Your task to perform on an android device: open device folders in google photos Image 0: 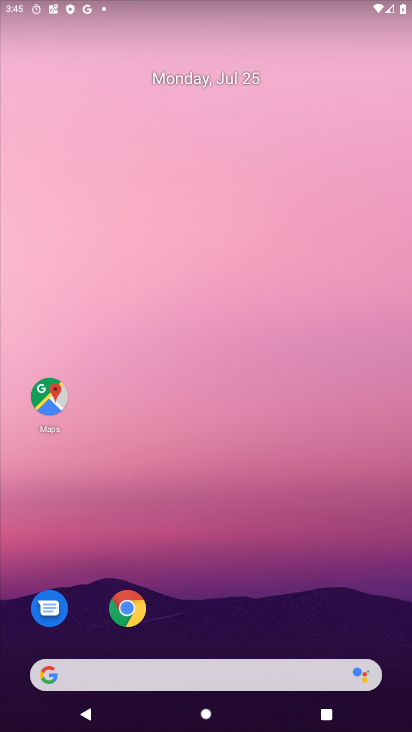
Step 0: drag from (205, 620) to (213, 0)
Your task to perform on an android device: open device folders in google photos Image 1: 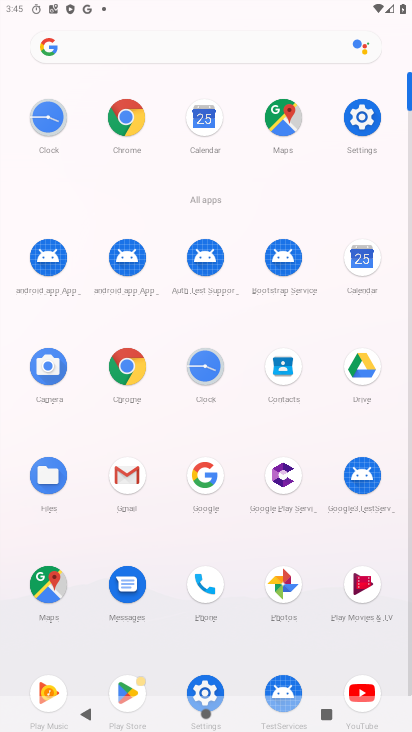
Step 1: click (362, 112)
Your task to perform on an android device: open device folders in google photos Image 2: 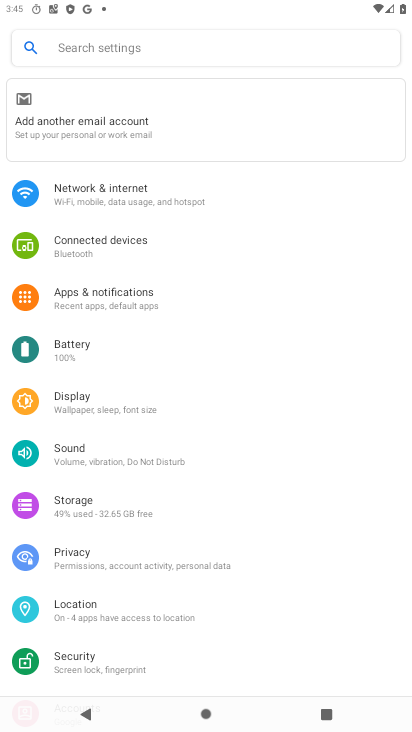
Step 2: press home button
Your task to perform on an android device: open device folders in google photos Image 3: 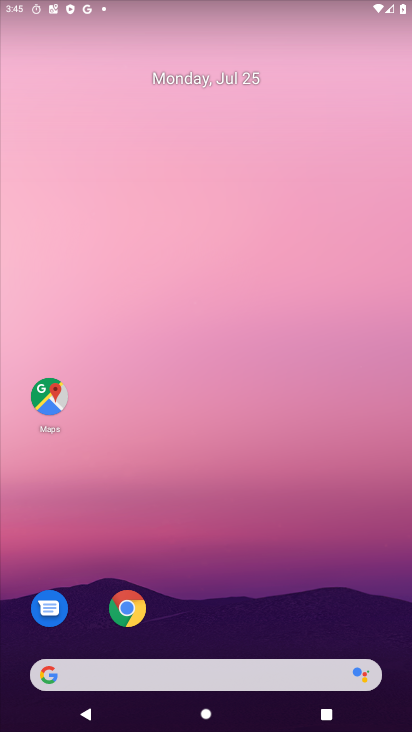
Step 3: drag from (224, 629) to (215, 61)
Your task to perform on an android device: open device folders in google photos Image 4: 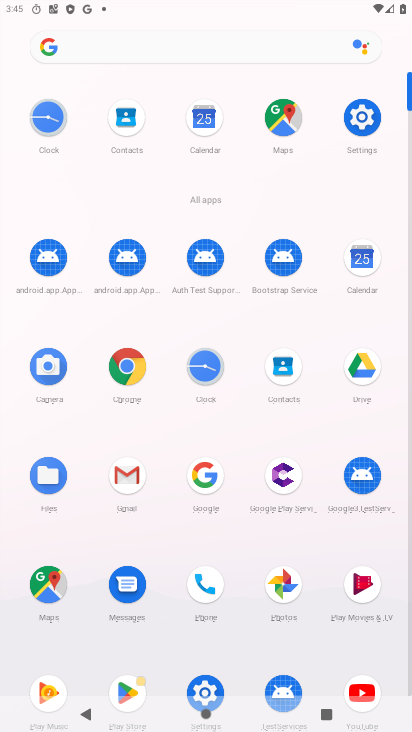
Step 4: click (282, 578)
Your task to perform on an android device: open device folders in google photos Image 5: 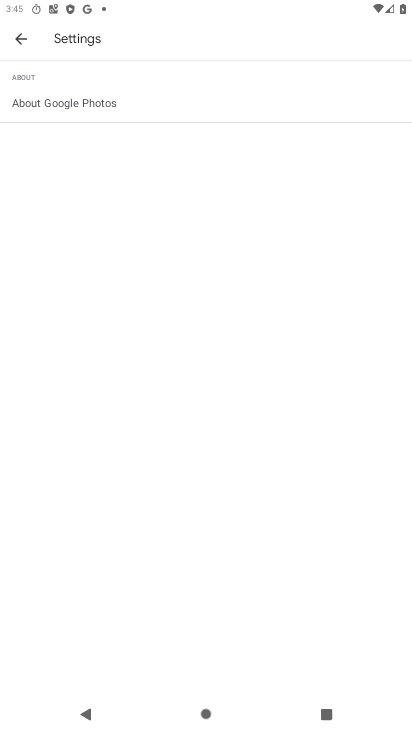
Step 5: click (18, 37)
Your task to perform on an android device: open device folders in google photos Image 6: 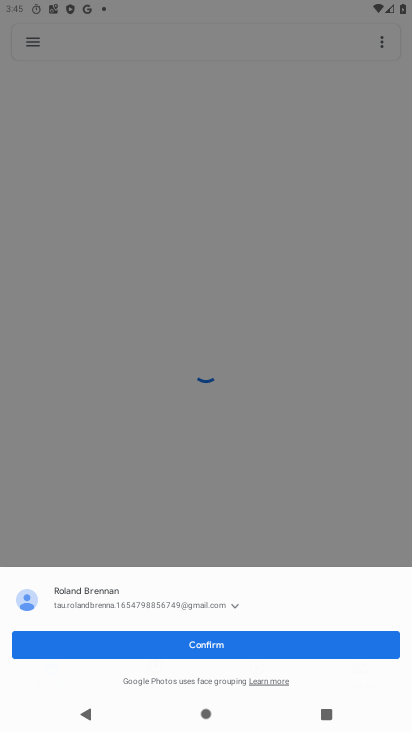
Step 6: click (35, 45)
Your task to perform on an android device: open device folders in google photos Image 7: 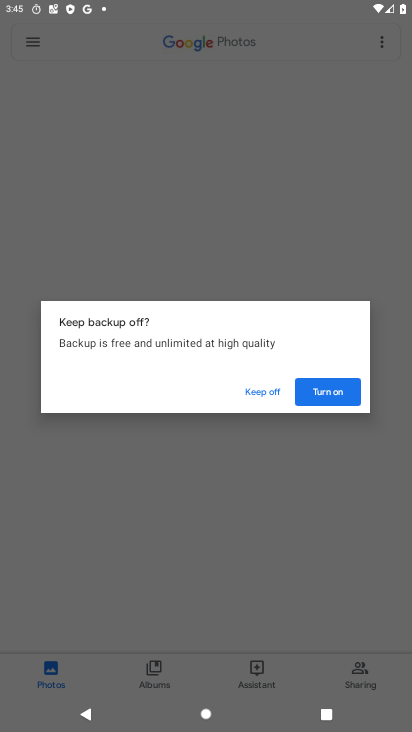
Step 7: click (317, 389)
Your task to perform on an android device: open device folders in google photos Image 8: 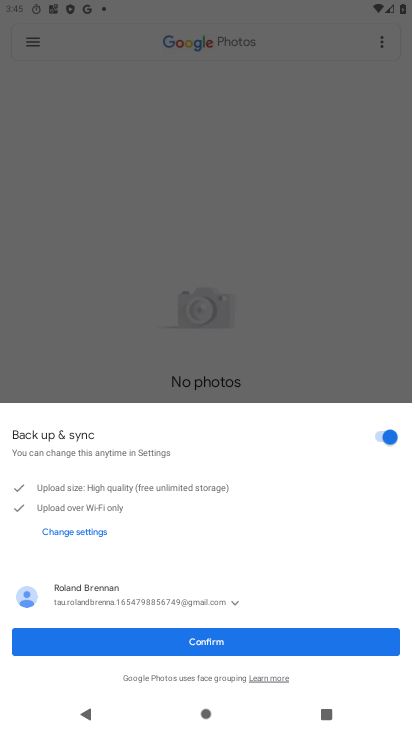
Step 8: click (205, 634)
Your task to perform on an android device: open device folders in google photos Image 9: 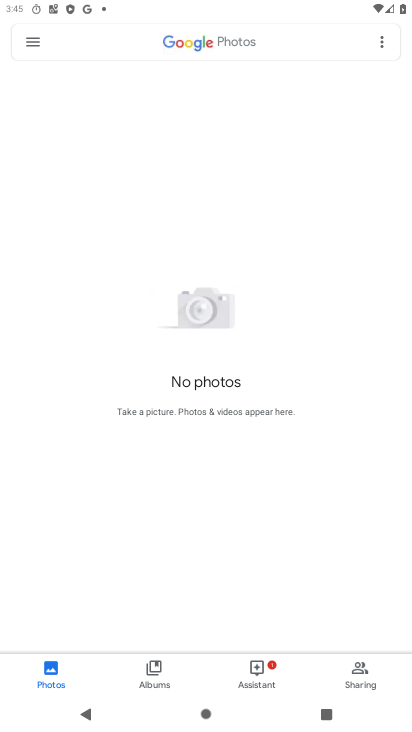
Step 9: click (34, 42)
Your task to perform on an android device: open device folders in google photos Image 10: 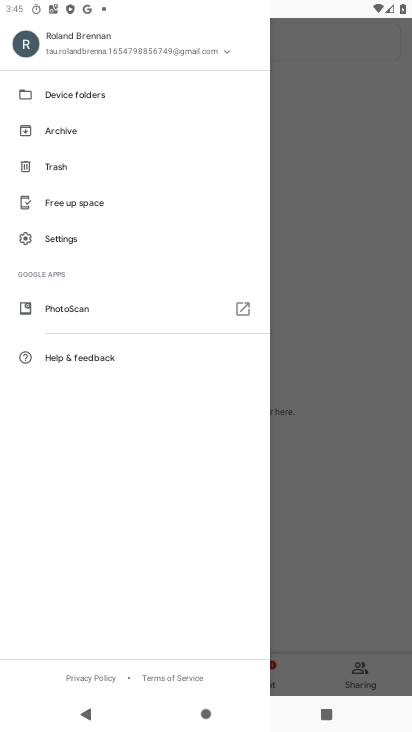
Step 10: click (103, 94)
Your task to perform on an android device: open device folders in google photos Image 11: 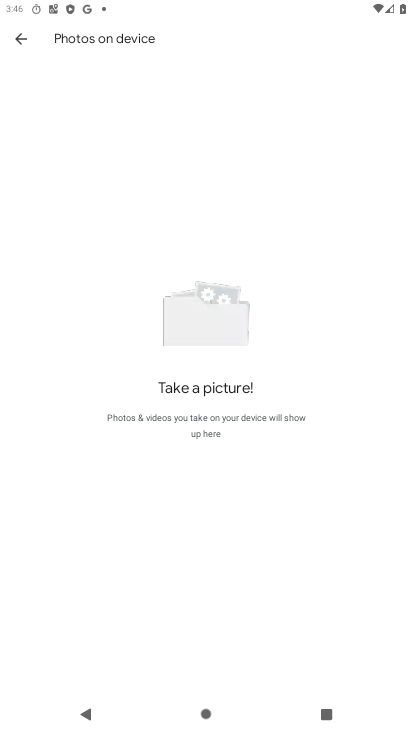
Step 11: task complete